Your task to perform on an android device: turn off priority inbox in the gmail app Image 0: 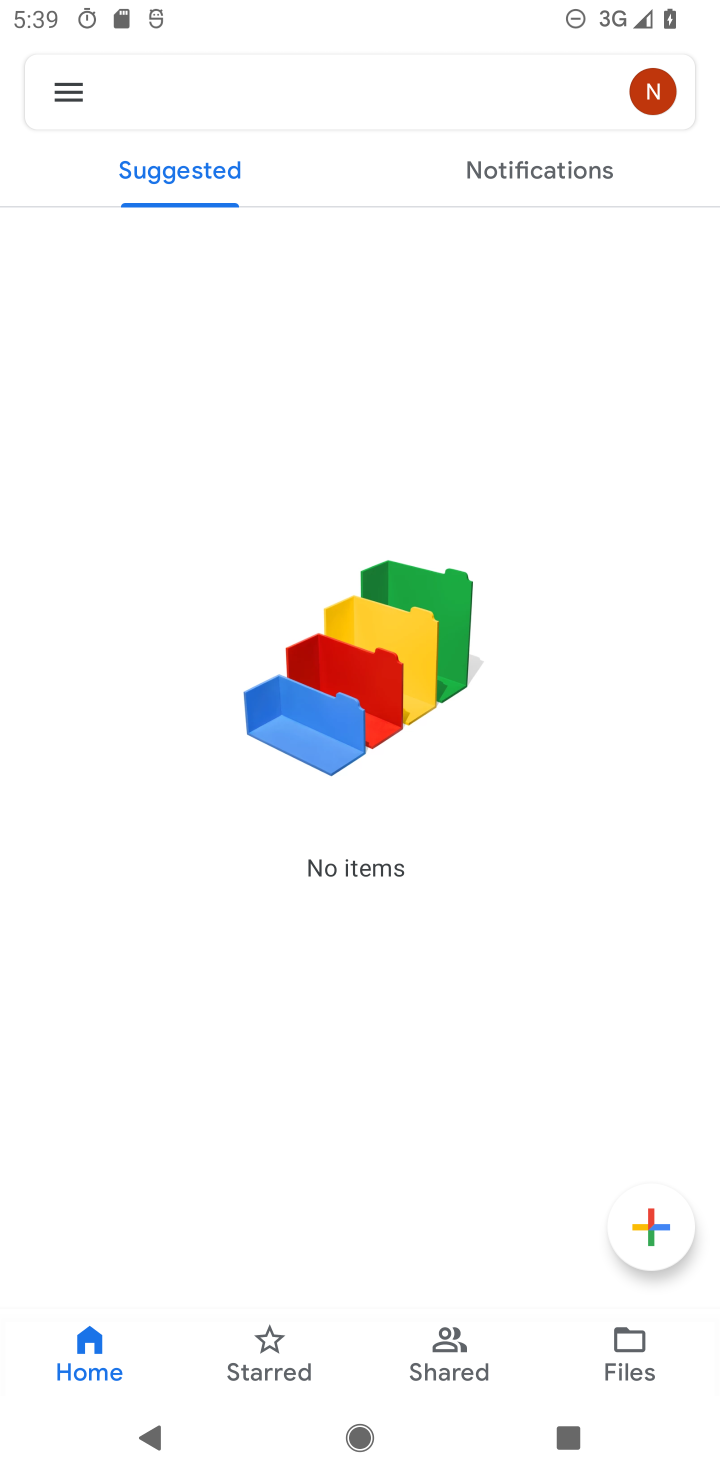
Step 0: press home button
Your task to perform on an android device: turn off priority inbox in the gmail app Image 1: 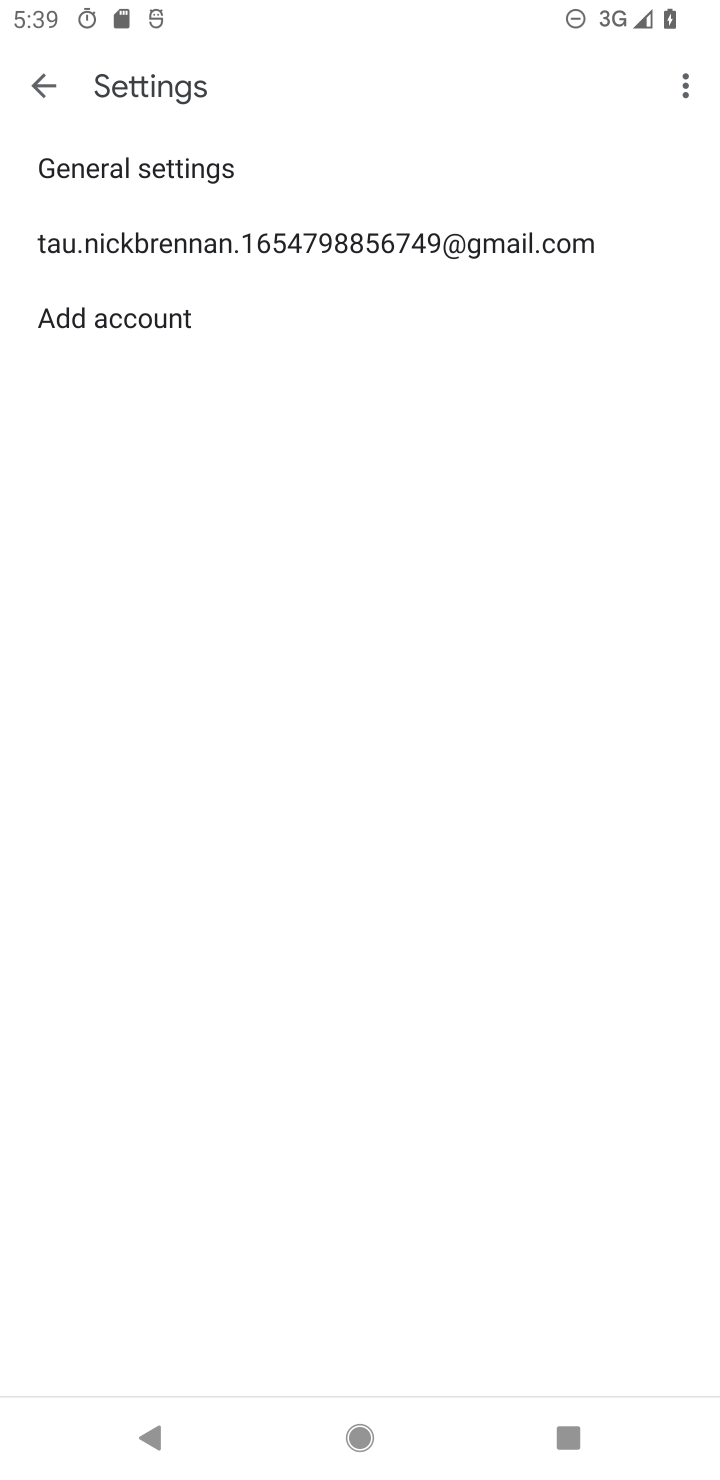
Step 1: drag from (314, 896) to (368, 269)
Your task to perform on an android device: turn off priority inbox in the gmail app Image 2: 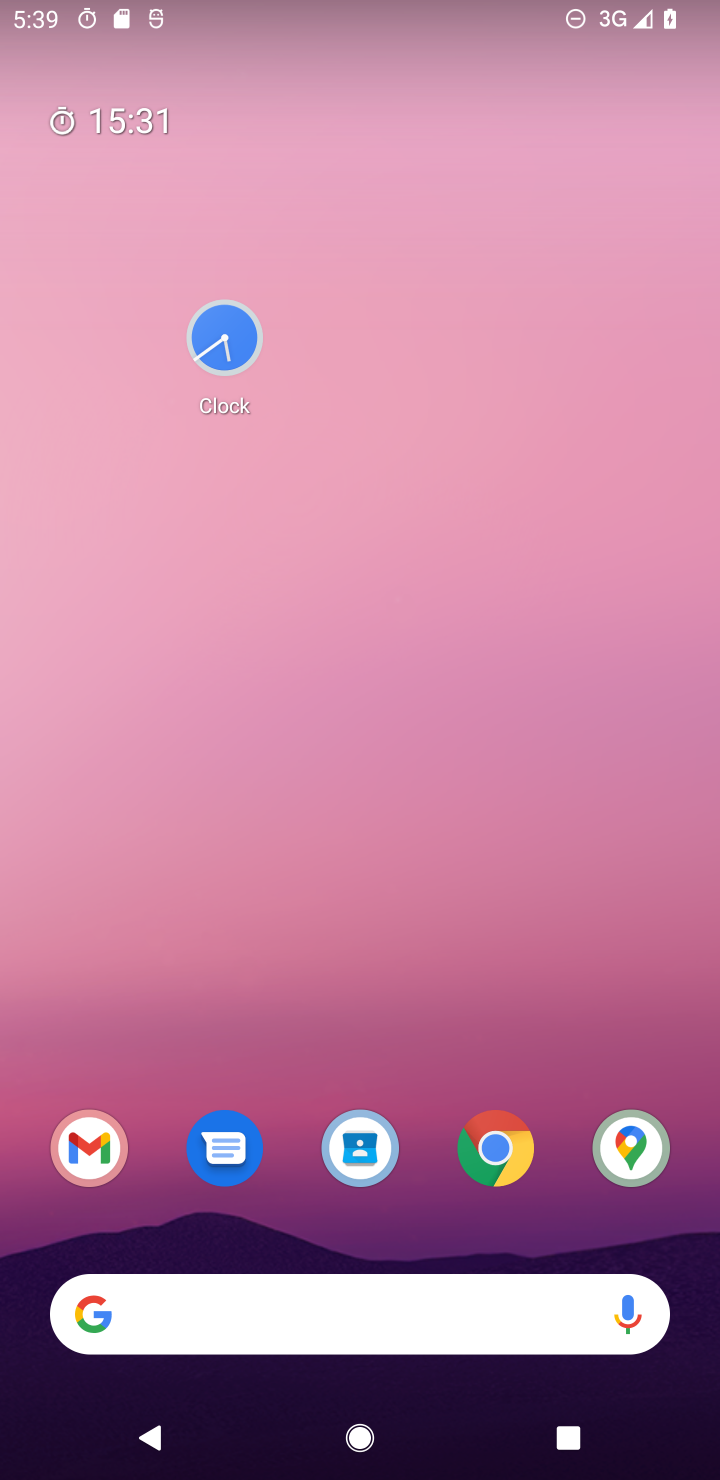
Step 2: drag from (314, 1199) to (319, 194)
Your task to perform on an android device: turn off priority inbox in the gmail app Image 3: 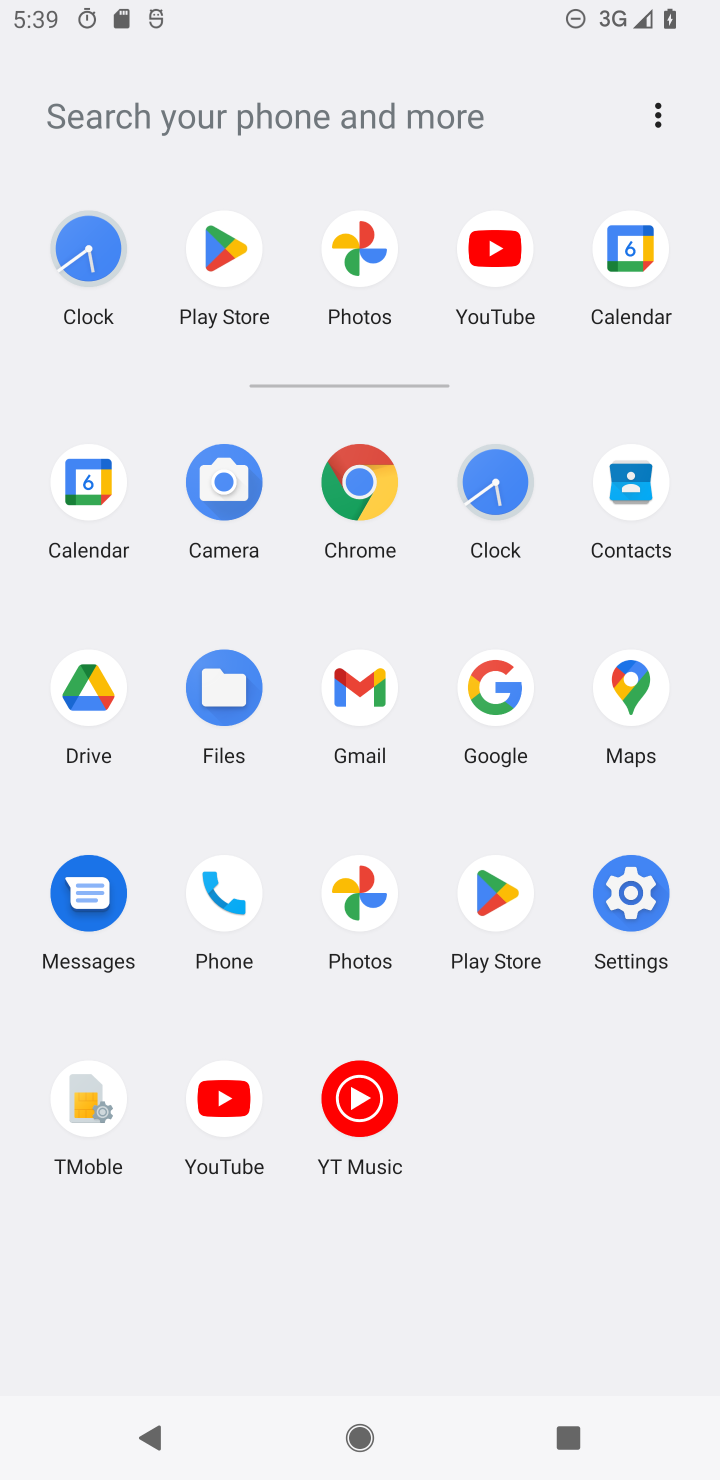
Step 3: click (654, 888)
Your task to perform on an android device: turn off priority inbox in the gmail app Image 4: 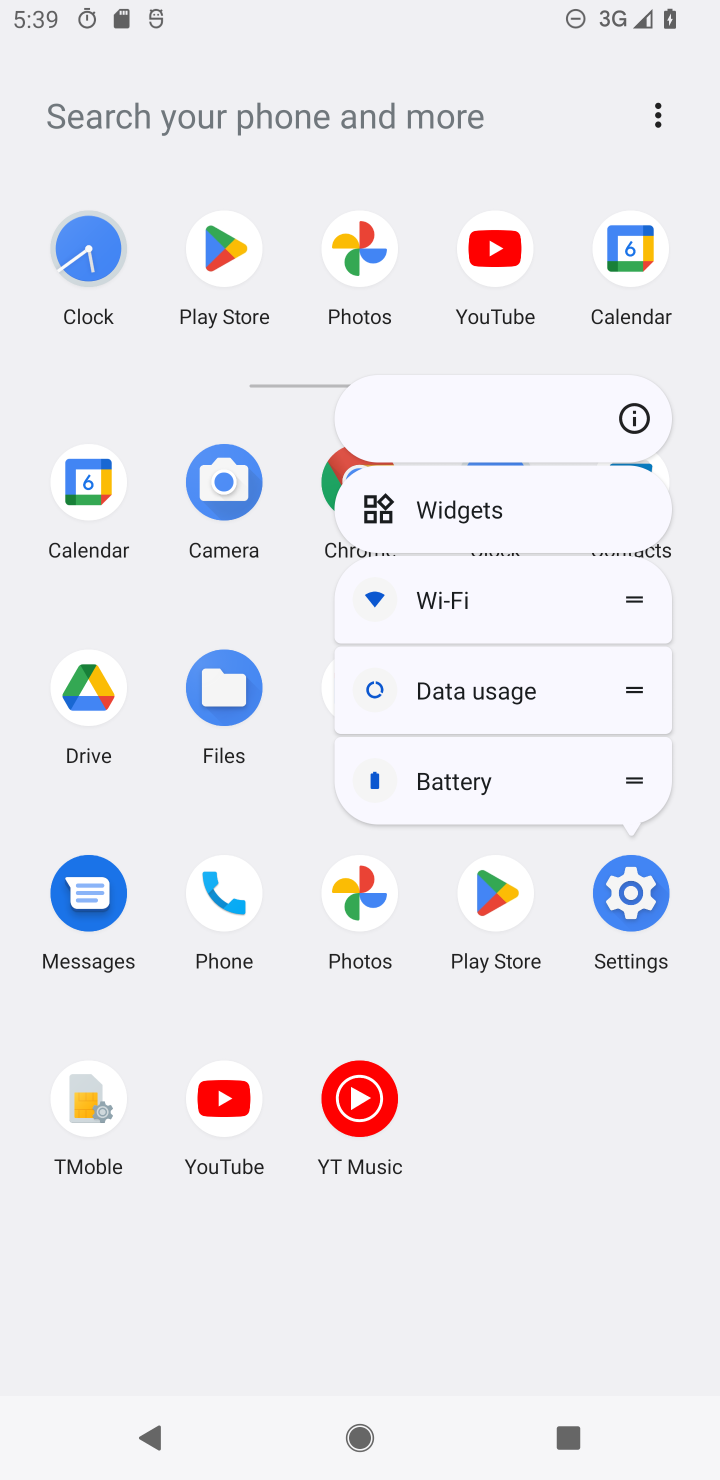
Step 4: click (295, 777)
Your task to perform on an android device: turn off priority inbox in the gmail app Image 5: 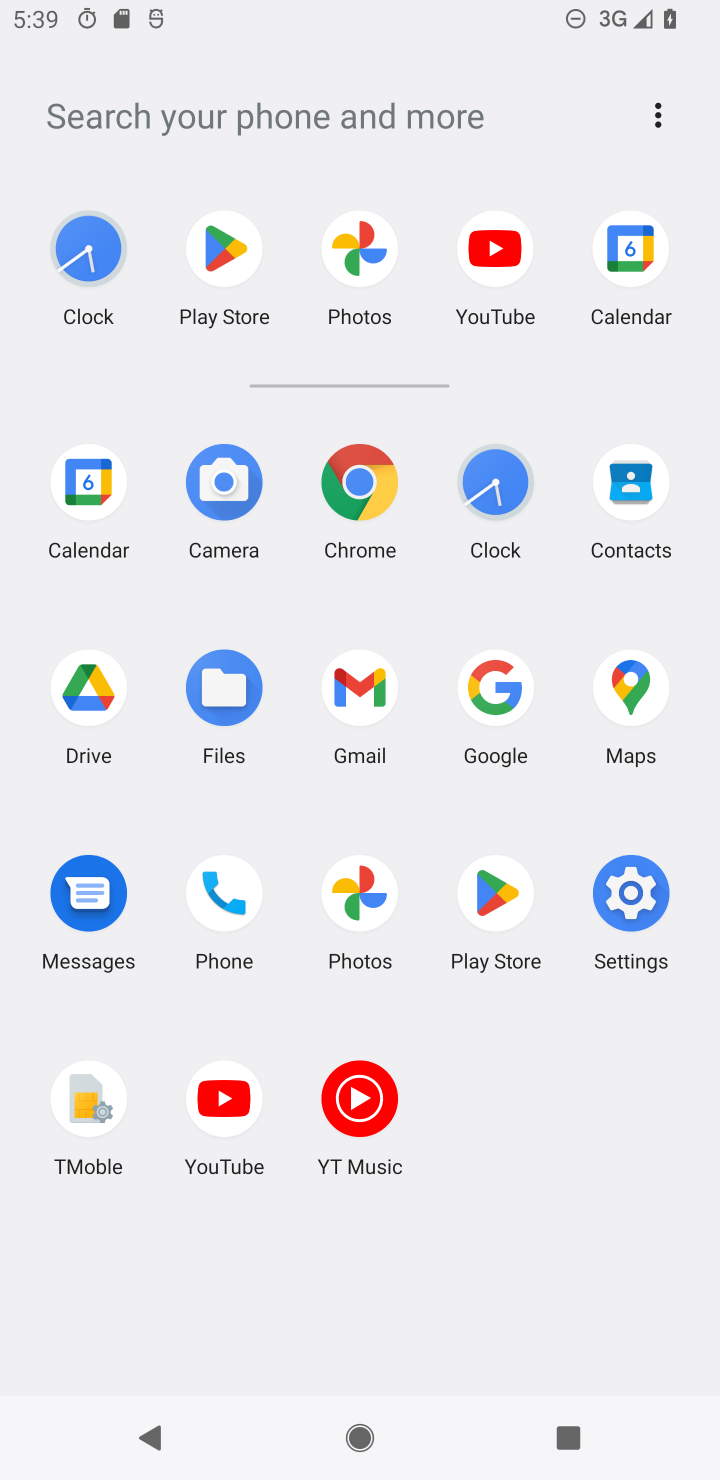
Step 5: click (358, 688)
Your task to perform on an android device: turn off priority inbox in the gmail app Image 6: 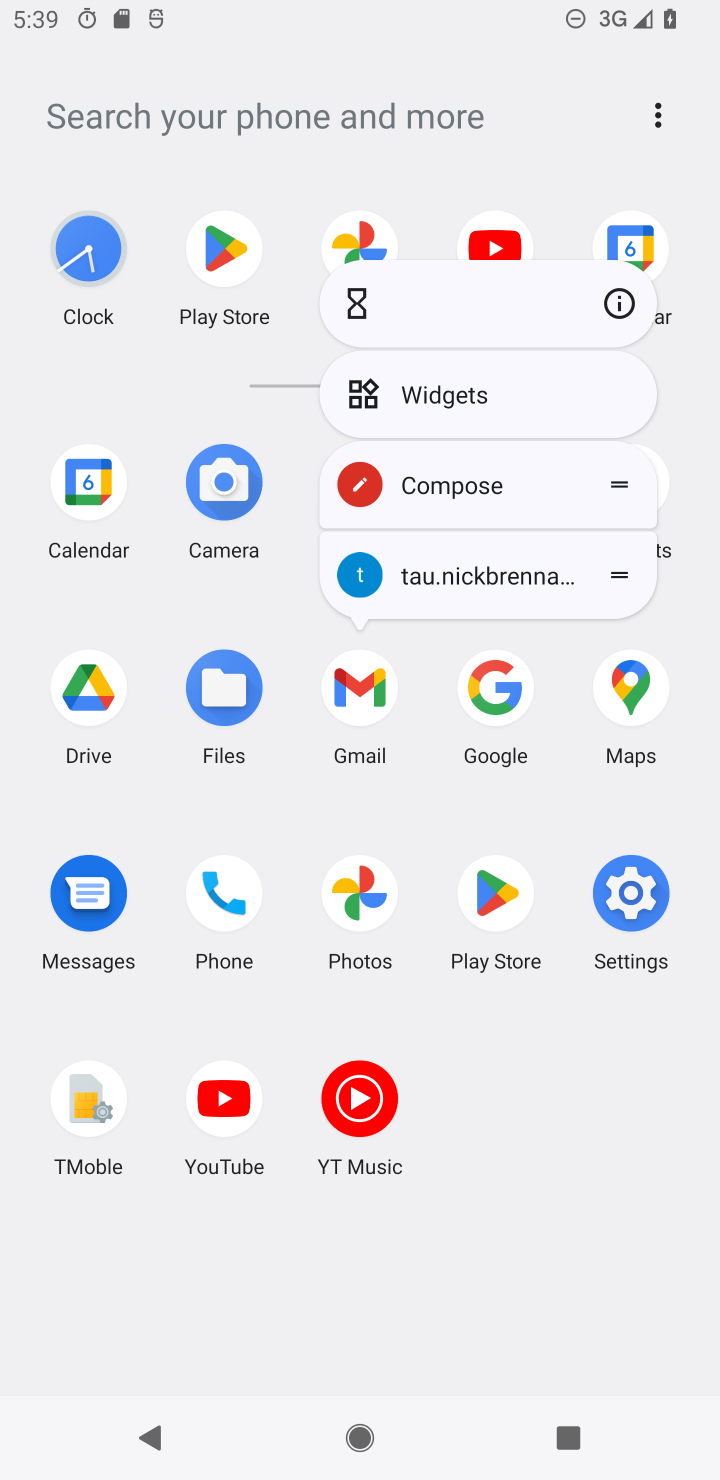
Step 6: click (626, 287)
Your task to perform on an android device: turn off priority inbox in the gmail app Image 7: 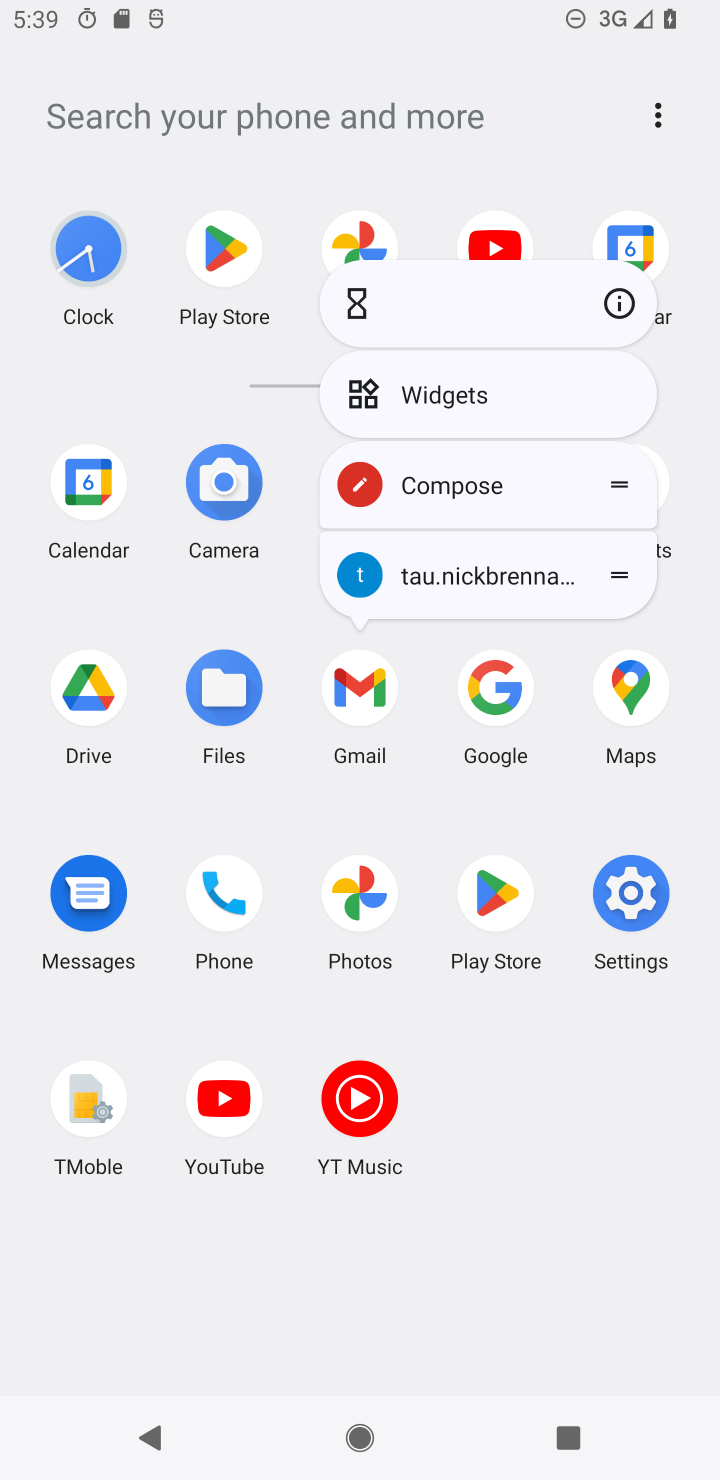
Step 7: click (624, 304)
Your task to perform on an android device: turn off priority inbox in the gmail app Image 8: 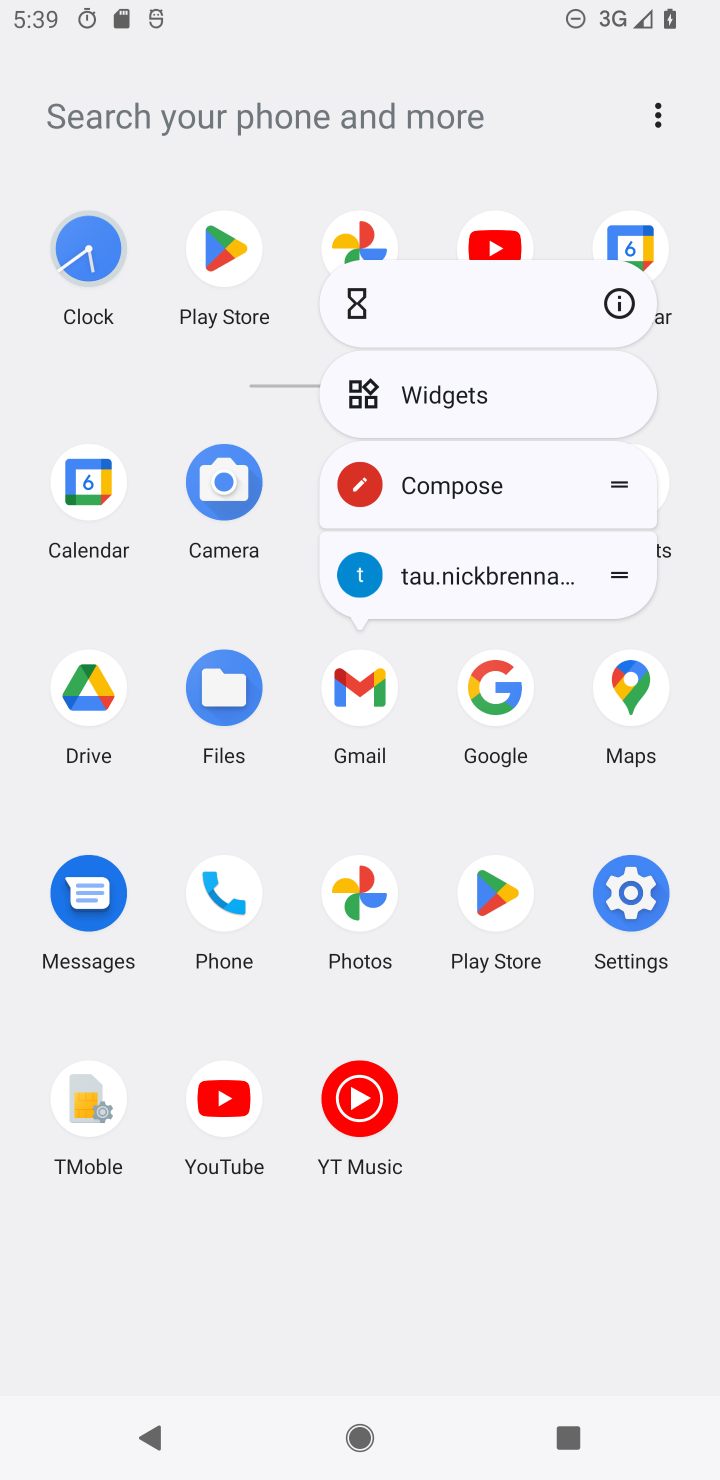
Step 8: click (339, 695)
Your task to perform on an android device: turn off priority inbox in the gmail app Image 9: 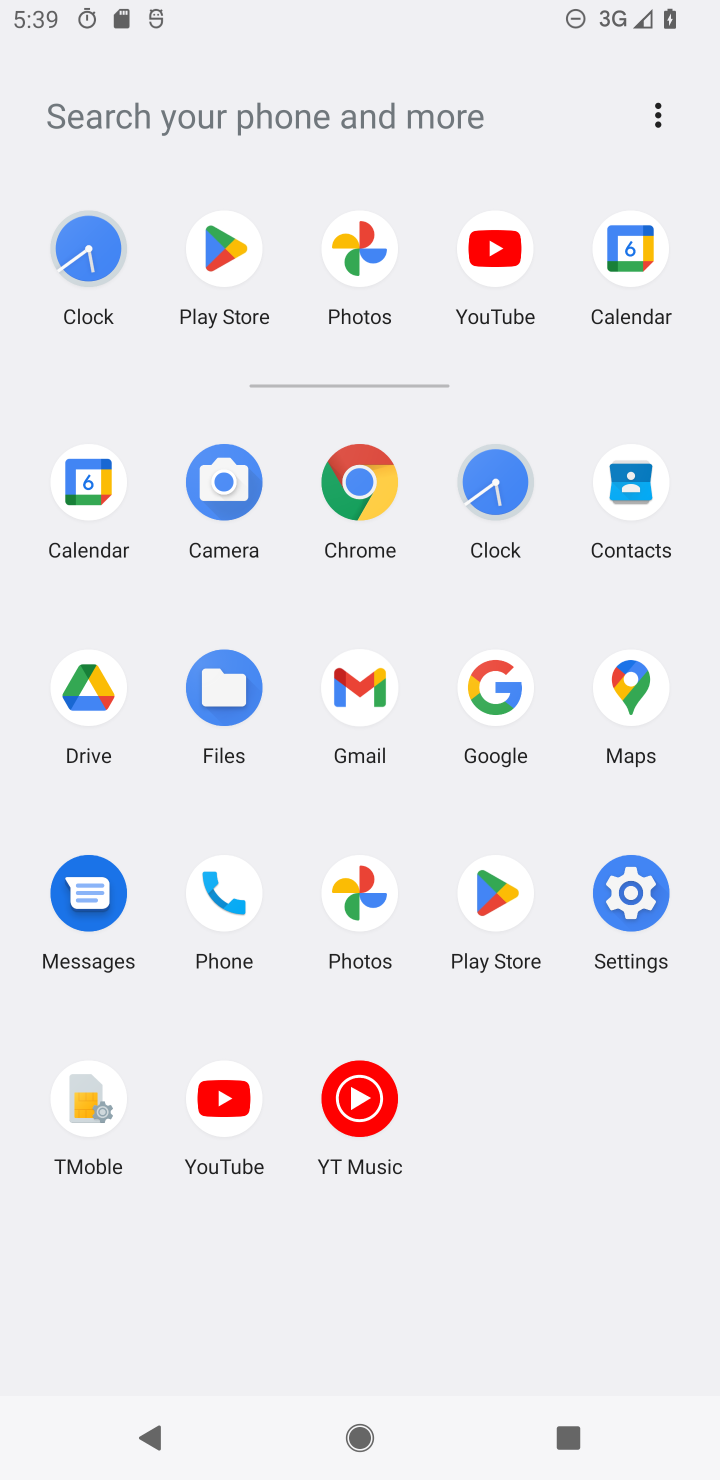
Step 9: click (339, 695)
Your task to perform on an android device: turn off priority inbox in the gmail app Image 10: 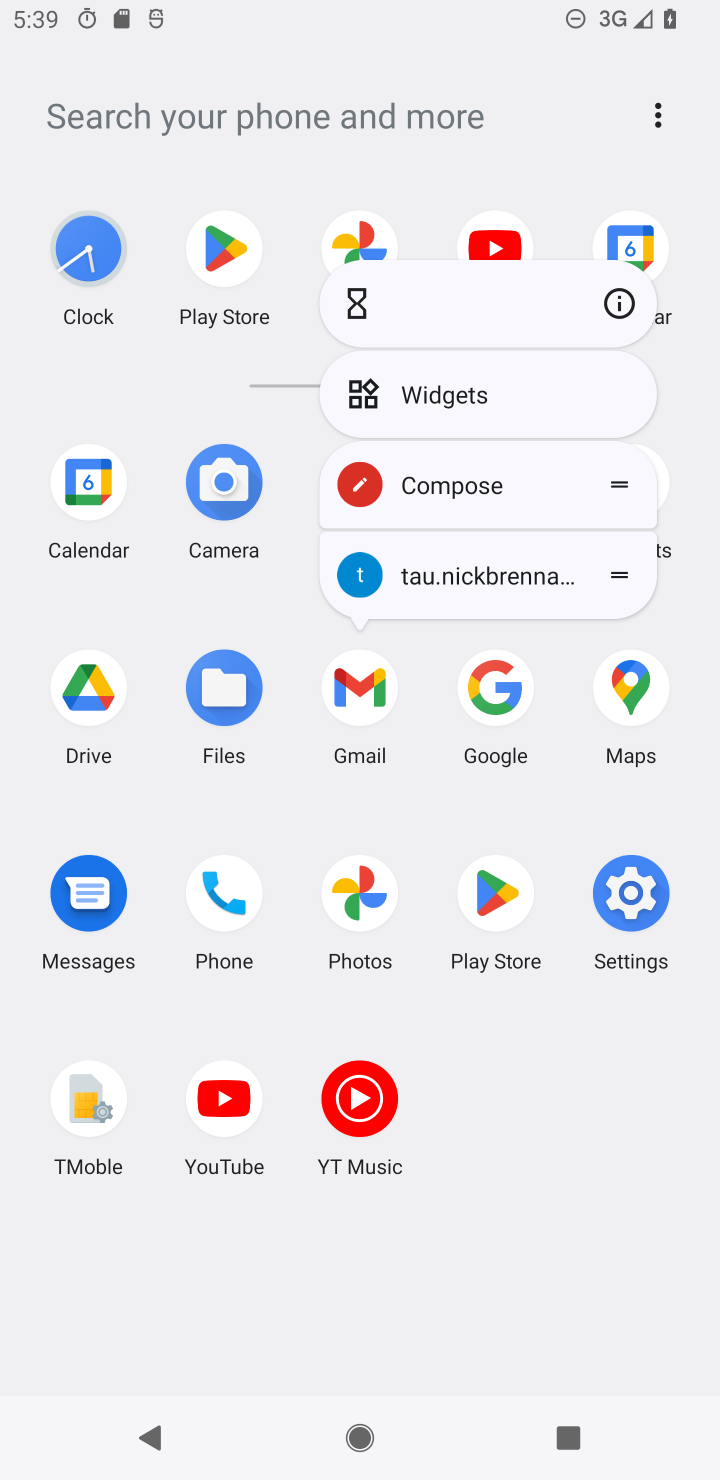
Step 10: click (610, 308)
Your task to perform on an android device: turn off priority inbox in the gmail app Image 11: 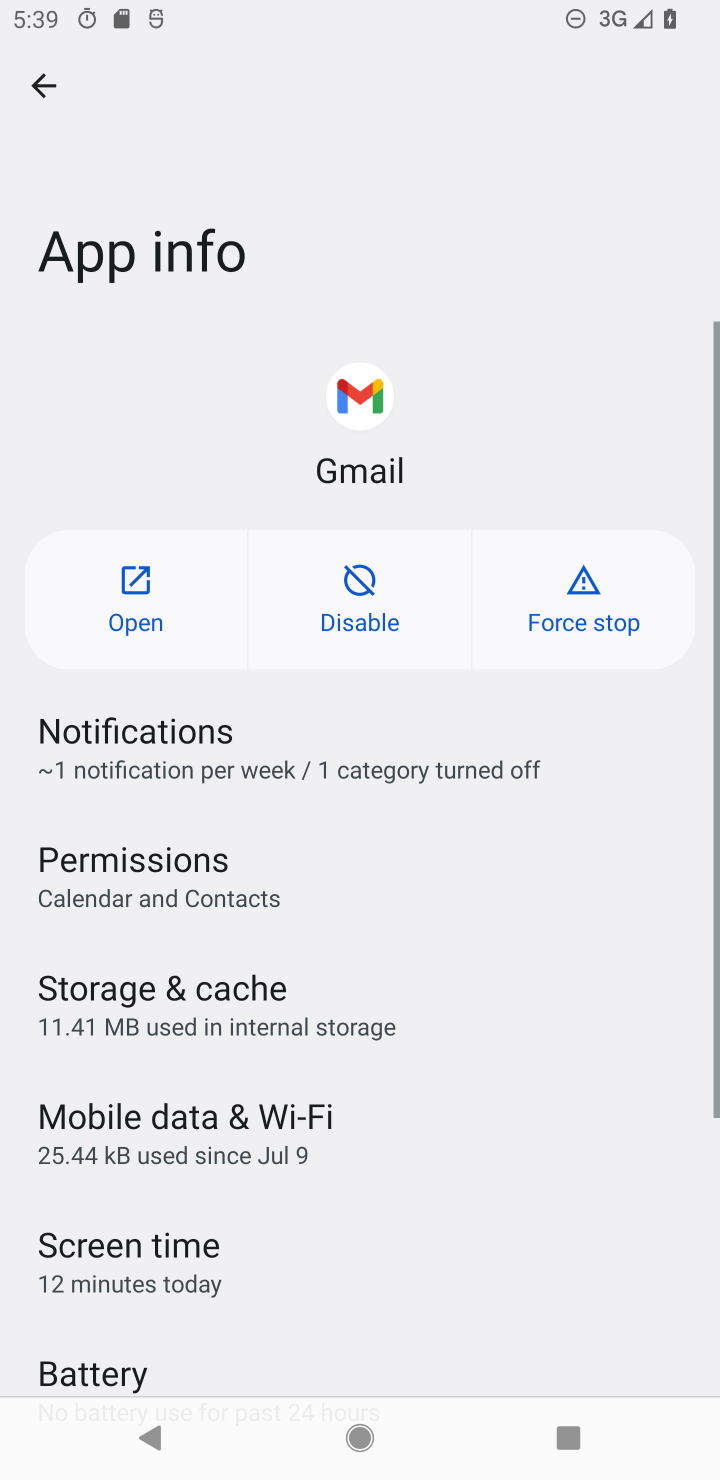
Step 11: click (177, 591)
Your task to perform on an android device: turn off priority inbox in the gmail app Image 12: 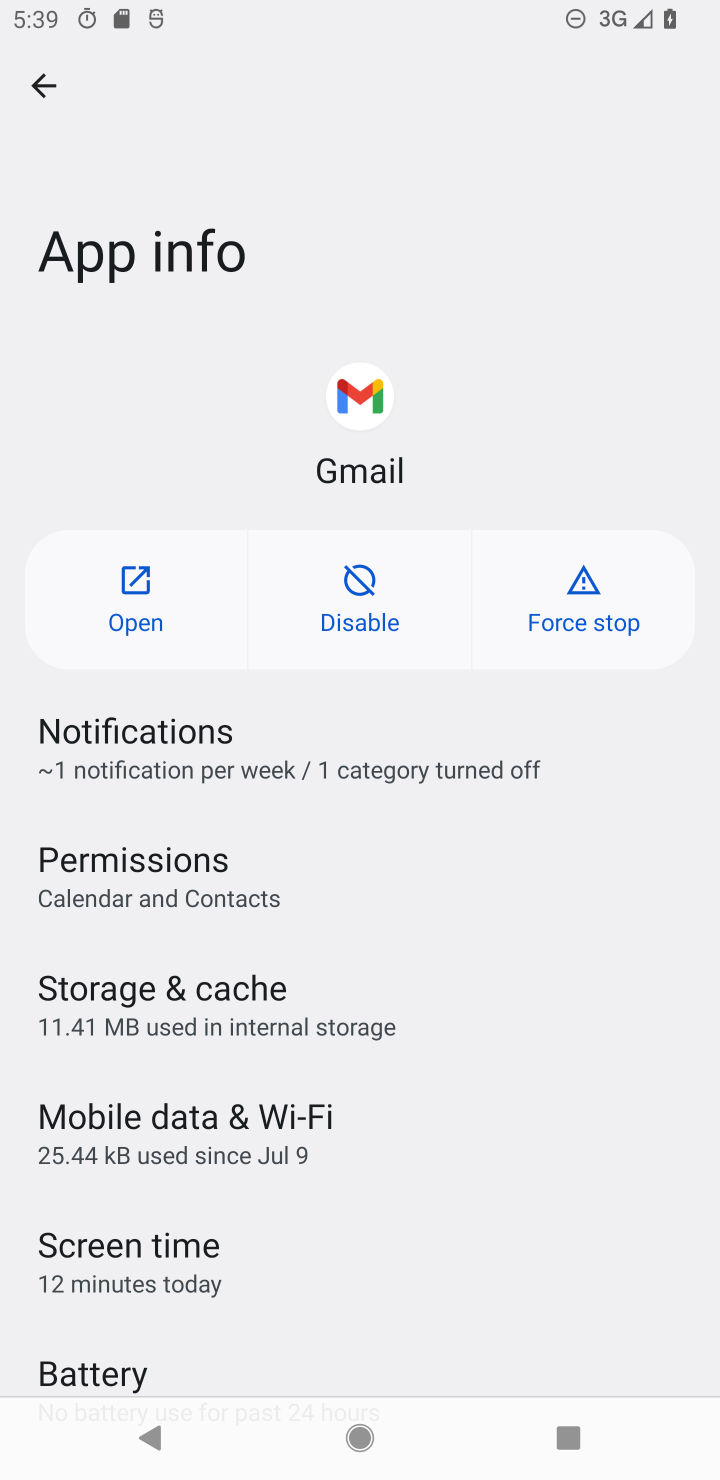
Step 12: click (158, 587)
Your task to perform on an android device: turn off priority inbox in the gmail app Image 13: 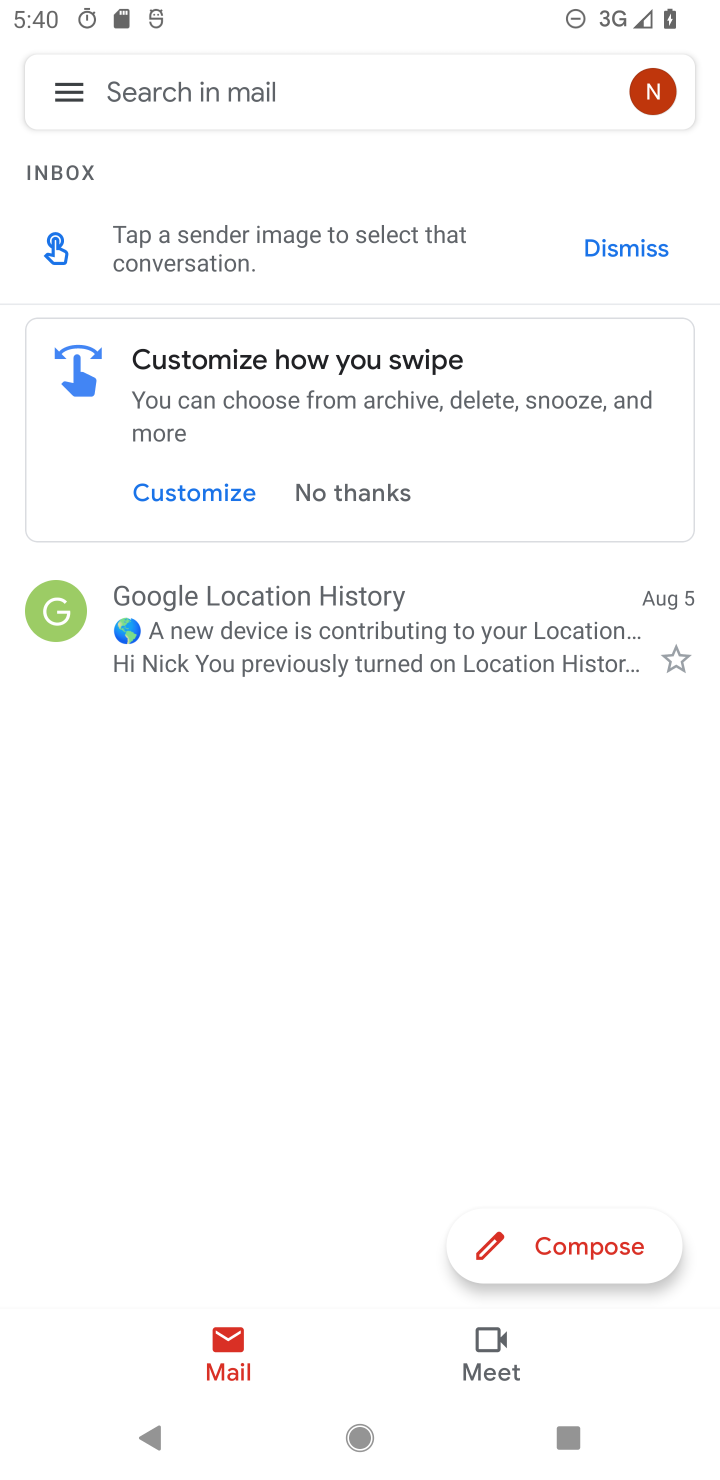
Step 13: click (64, 77)
Your task to perform on an android device: turn off priority inbox in the gmail app Image 14: 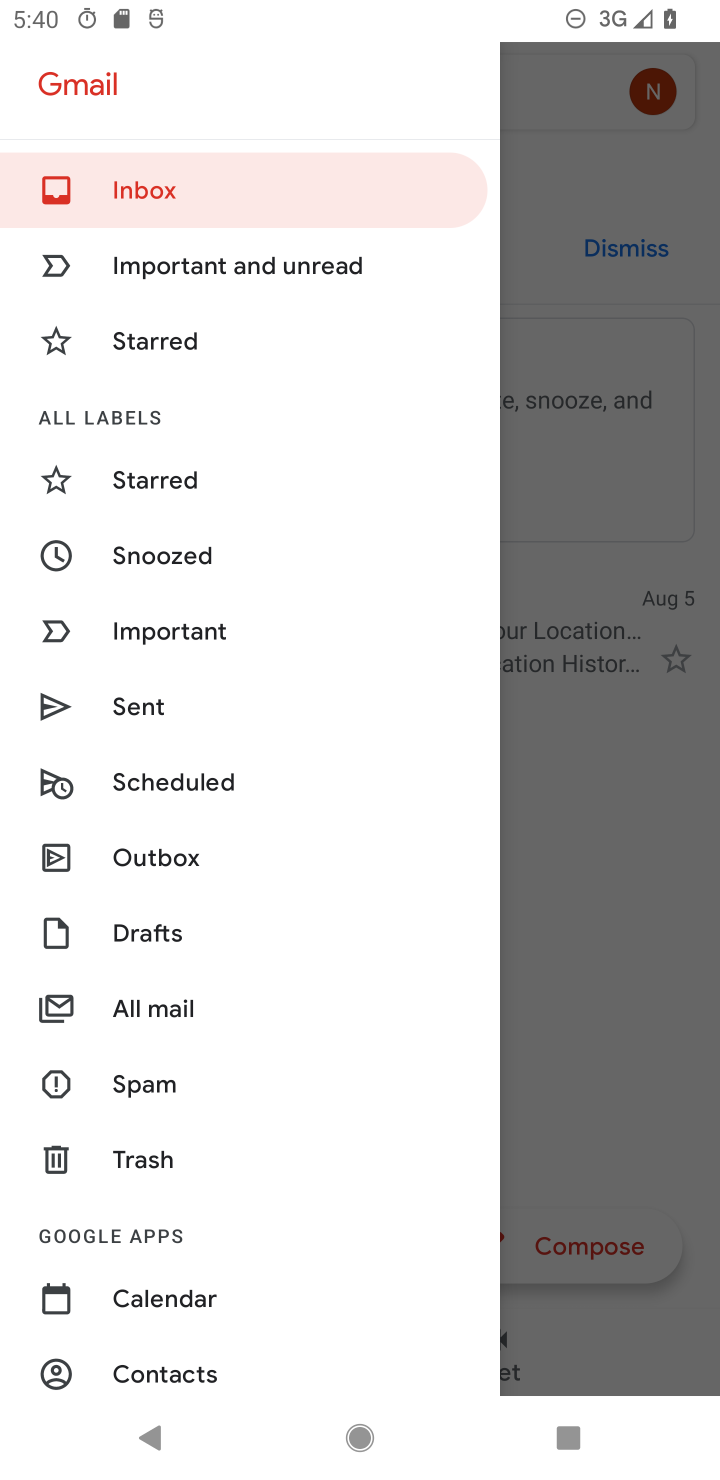
Step 14: drag from (232, 1207) to (282, 495)
Your task to perform on an android device: turn off priority inbox in the gmail app Image 15: 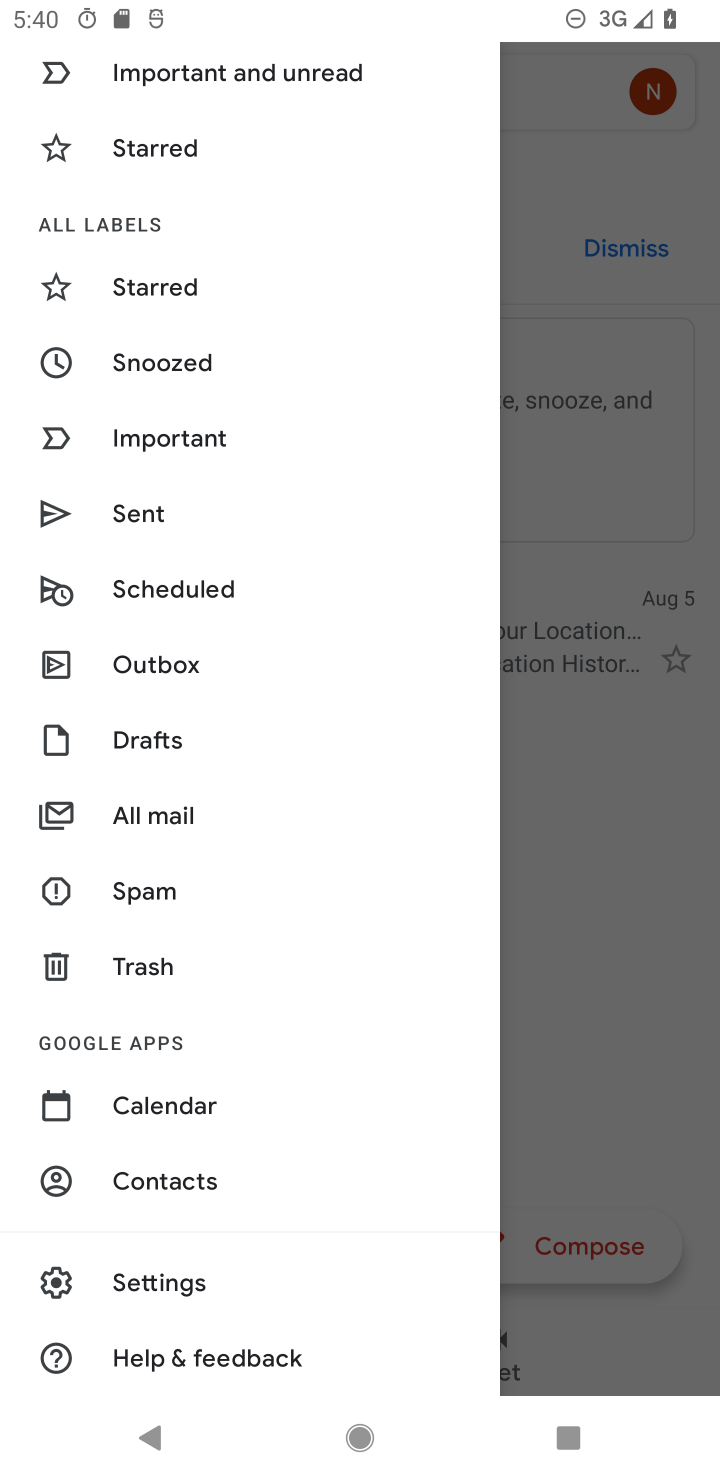
Step 15: drag from (301, 770) to (301, 549)
Your task to perform on an android device: turn off priority inbox in the gmail app Image 16: 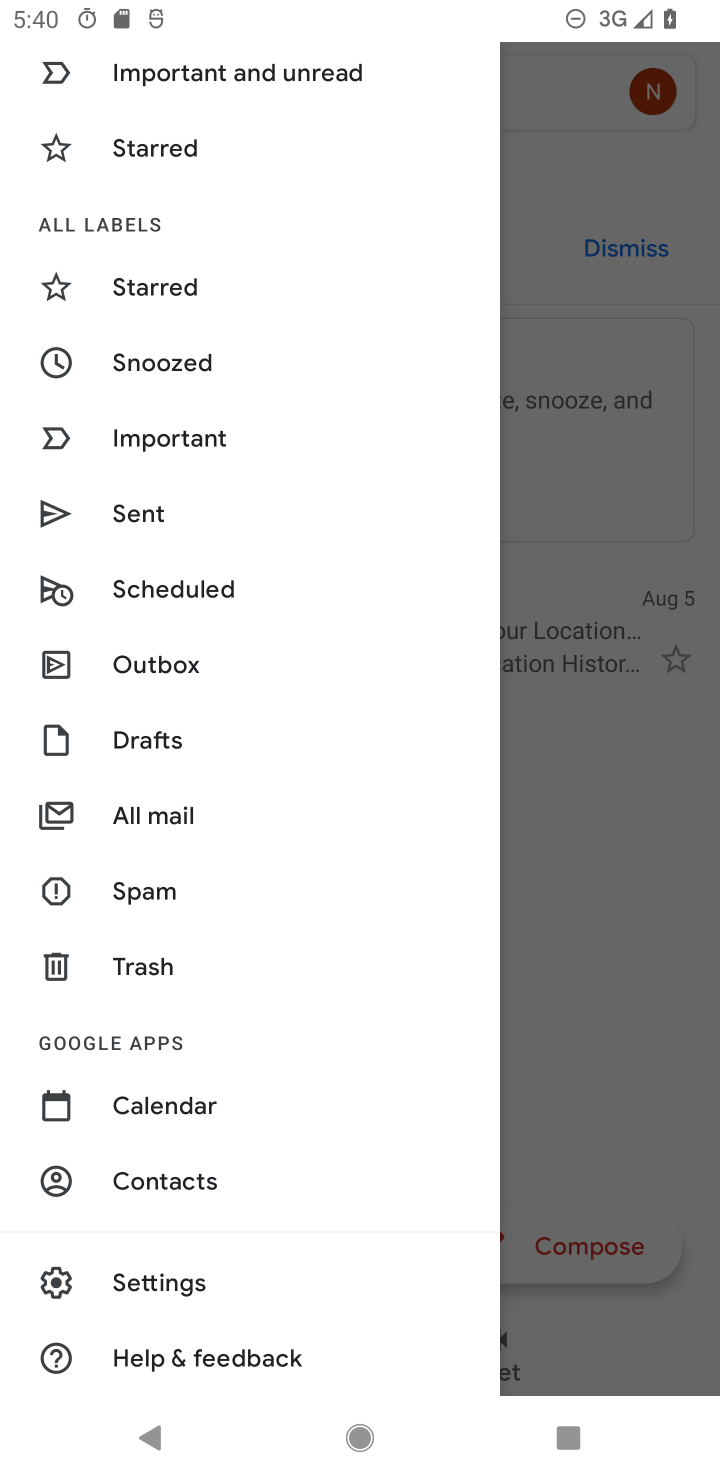
Step 16: drag from (217, 1211) to (275, 579)
Your task to perform on an android device: turn off priority inbox in the gmail app Image 17: 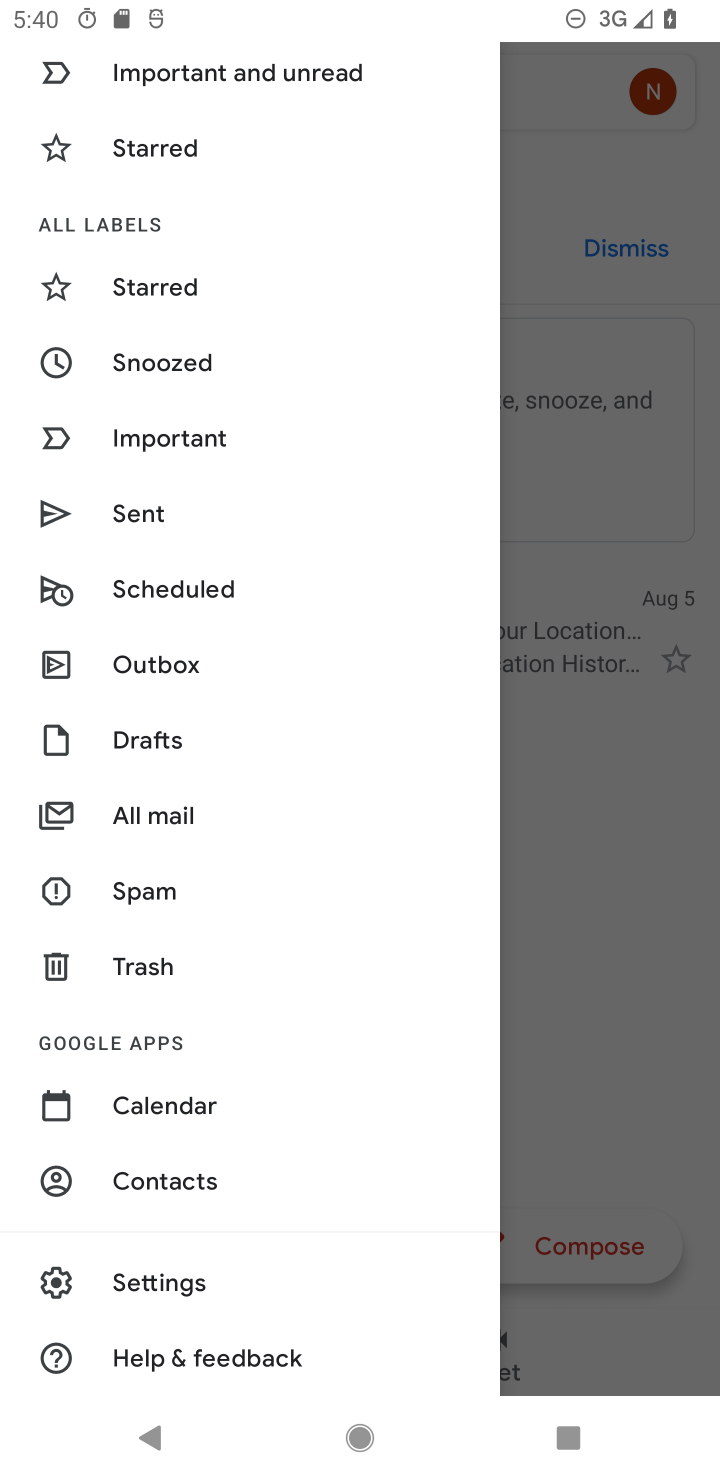
Step 17: drag from (181, 1273) to (352, 446)
Your task to perform on an android device: turn off priority inbox in the gmail app Image 18: 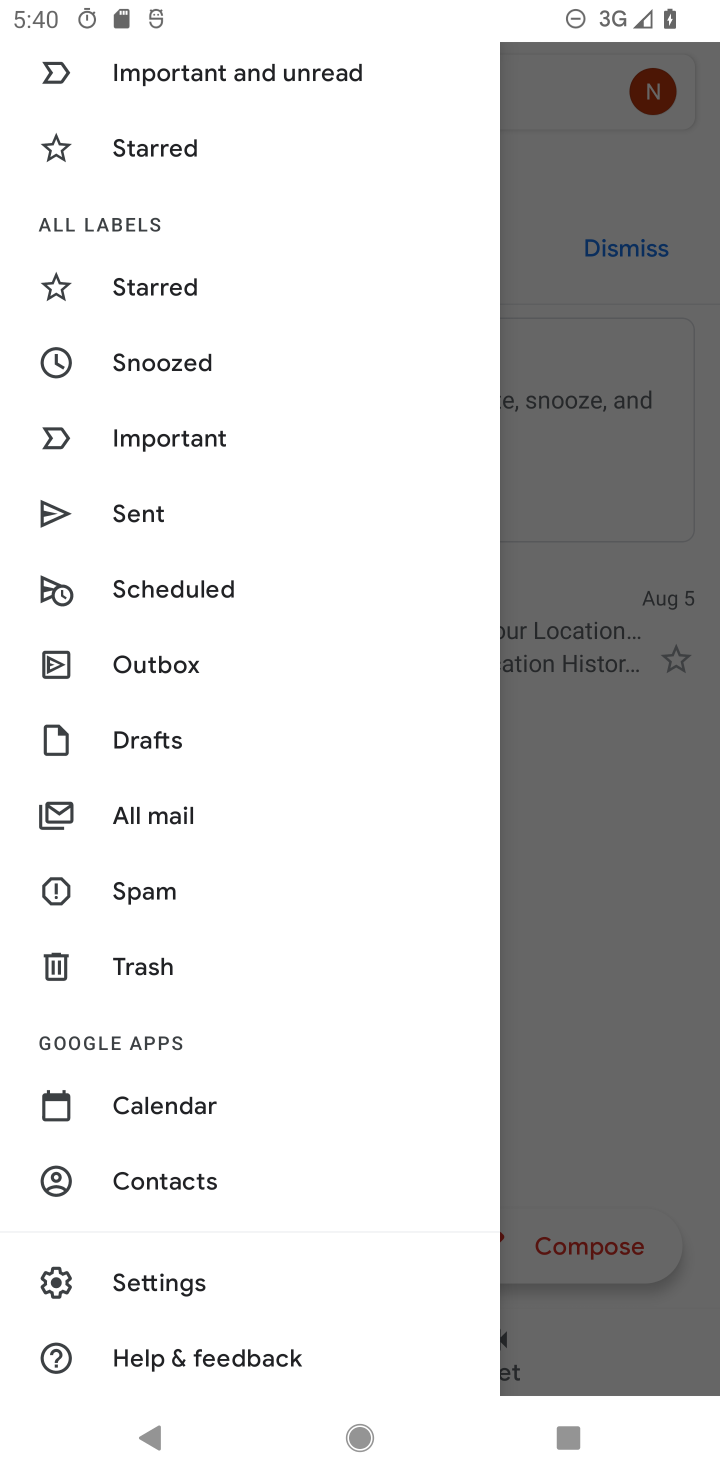
Step 18: click (181, 1269)
Your task to perform on an android device: turn off priority inbox in the gmail app Image 19: 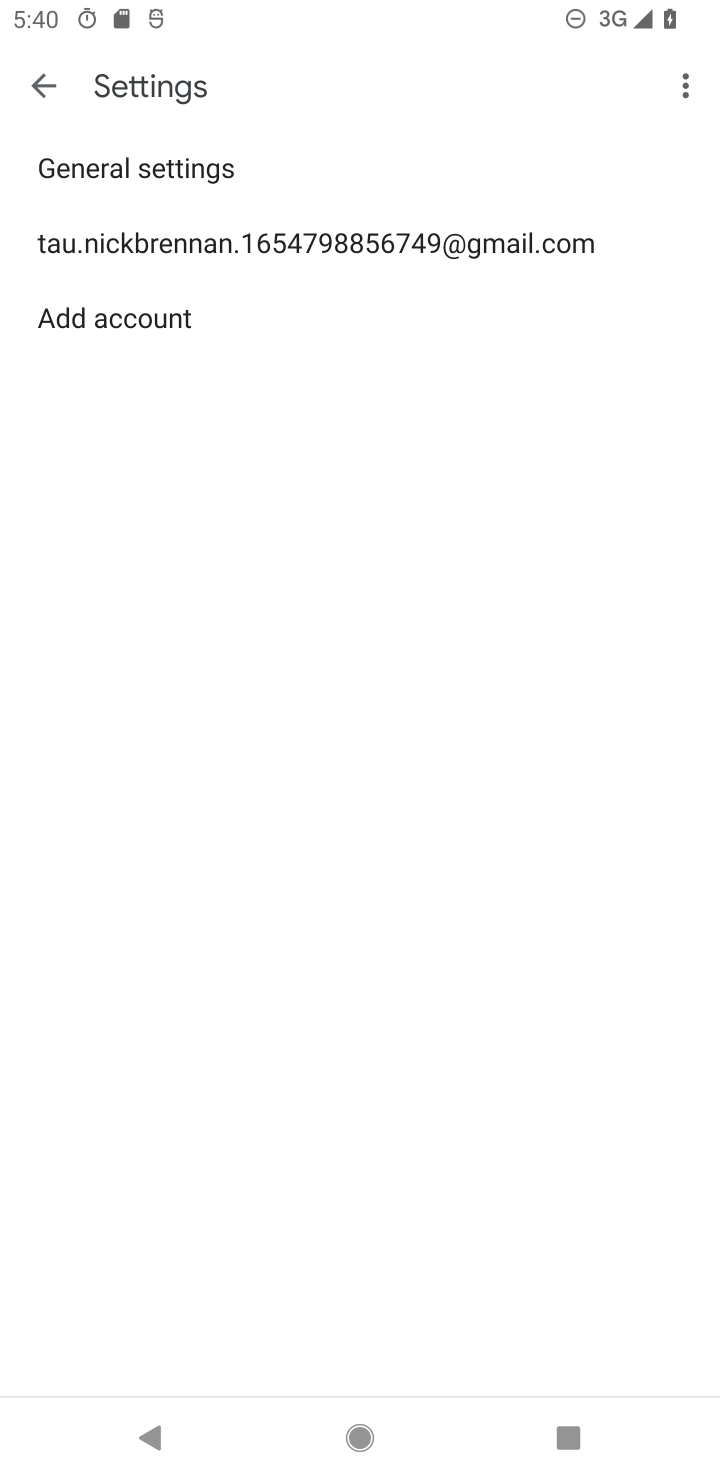
Step 19: click (438, 241)
Your task to perform on an android device: turn off priority inbox in the gmail app Image 20: 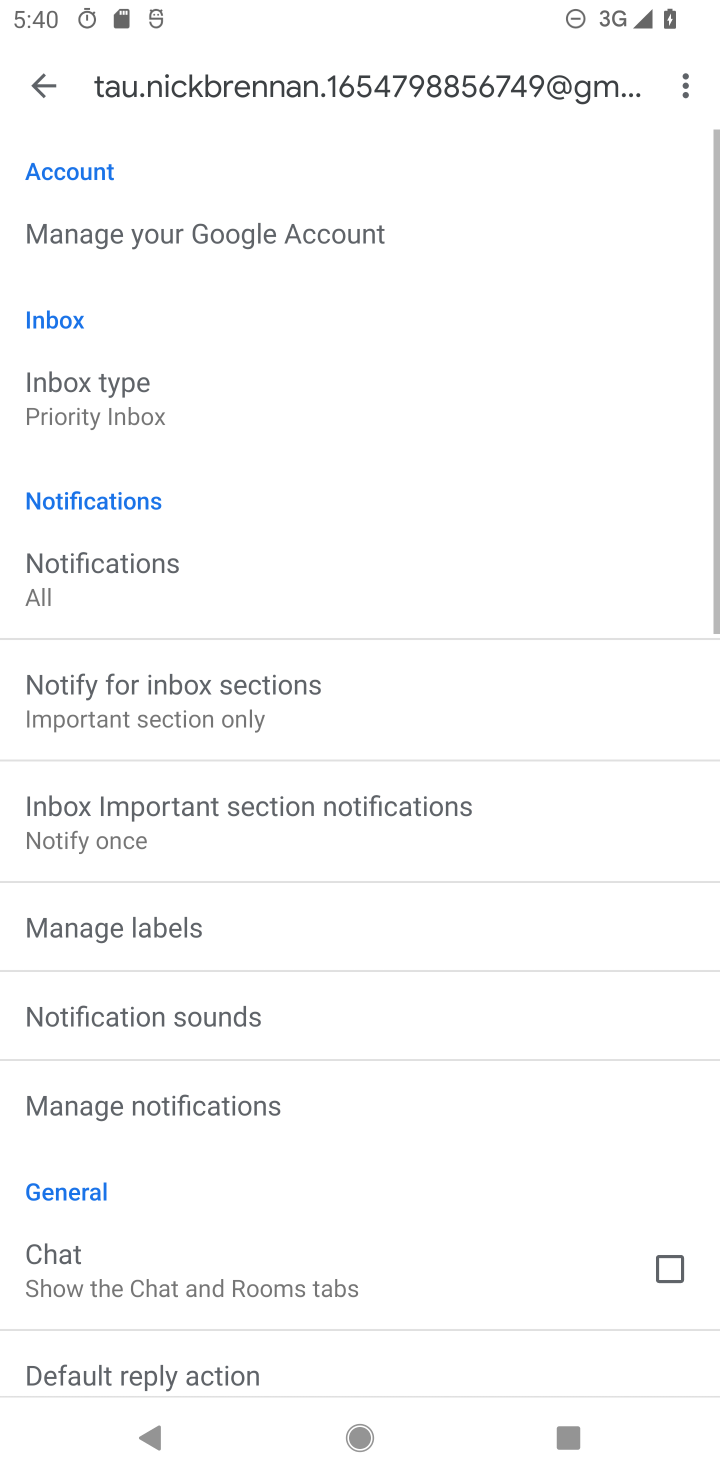
Step 20: drag from (316, 794) to (427, 1470)
Your task to perform on an android device: turn off priority inbox in the gmail app Image 21: 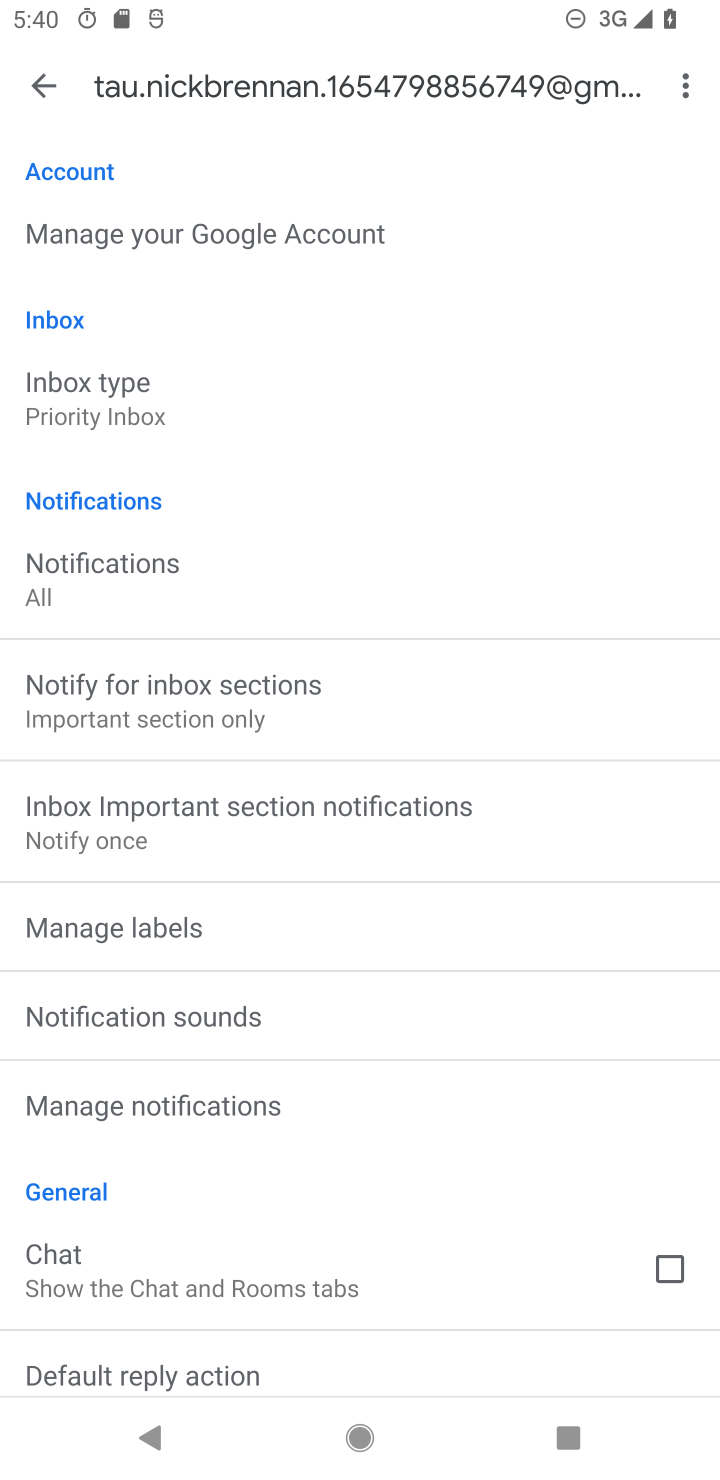
Step 21: click (449, 510)
Your task to perform on an android device: turn off priority inbox in the gmail app Image 22: 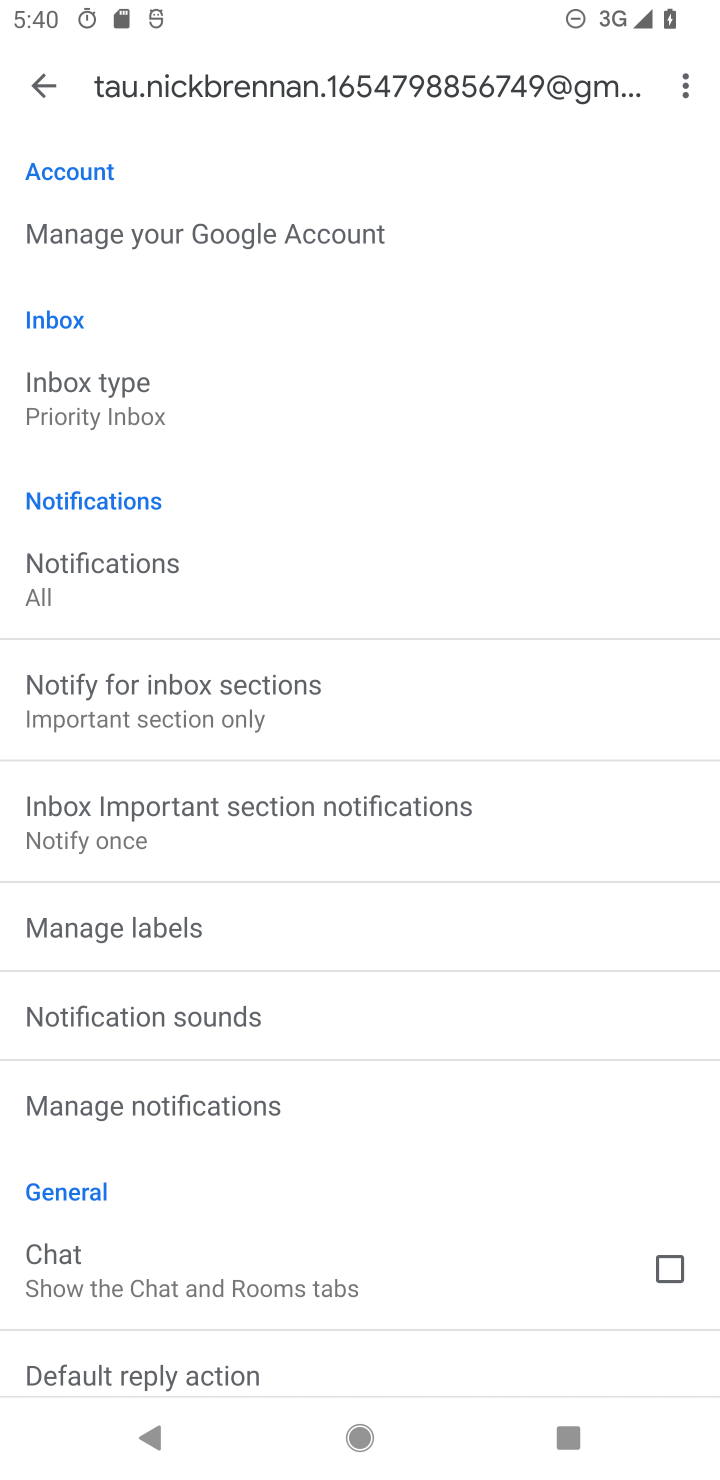
Step 22: drag from (375, 934) to (483, 1467)
Your task to perform on an android device: turn off priority inbox in the gmail app Image 23: 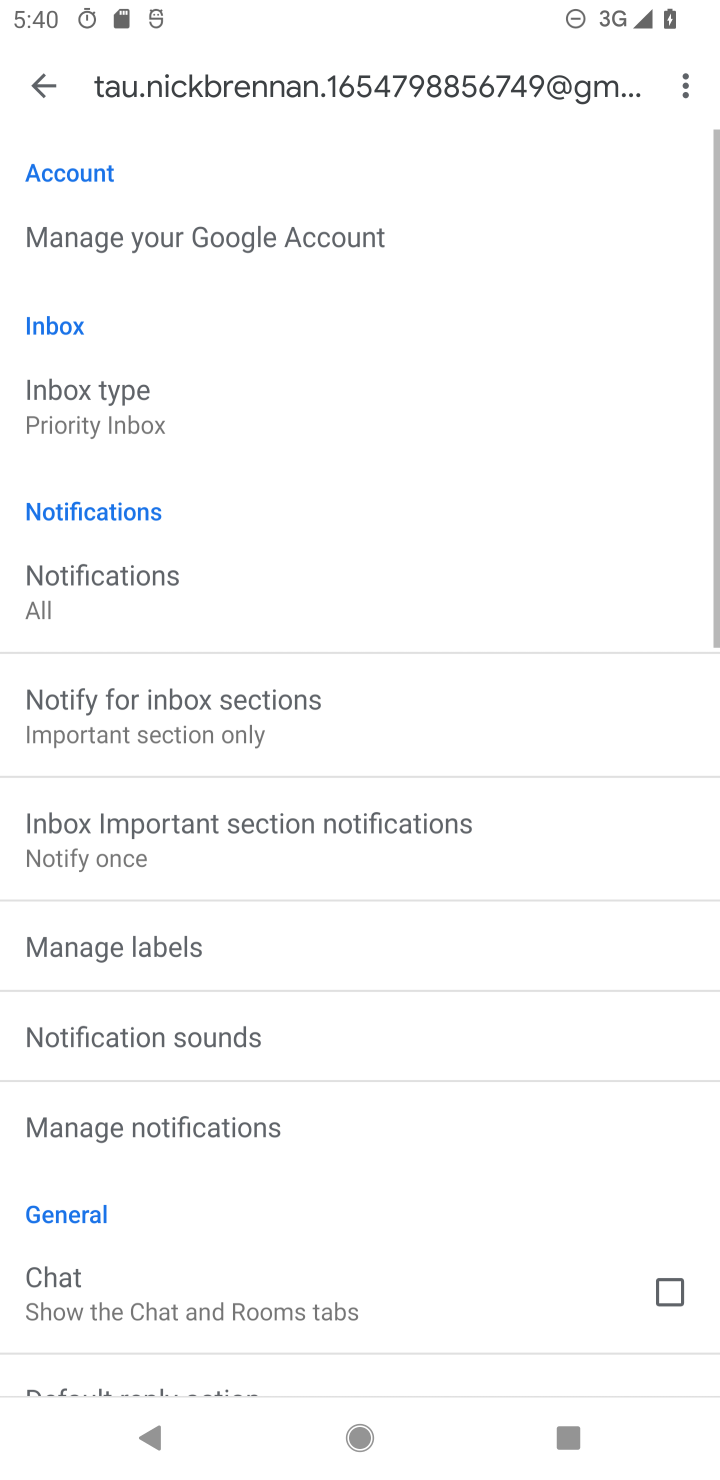
Step 23: click (285, 386)
Your task to perform on an android device: turn off priority inbox in the gmail app Image 24: 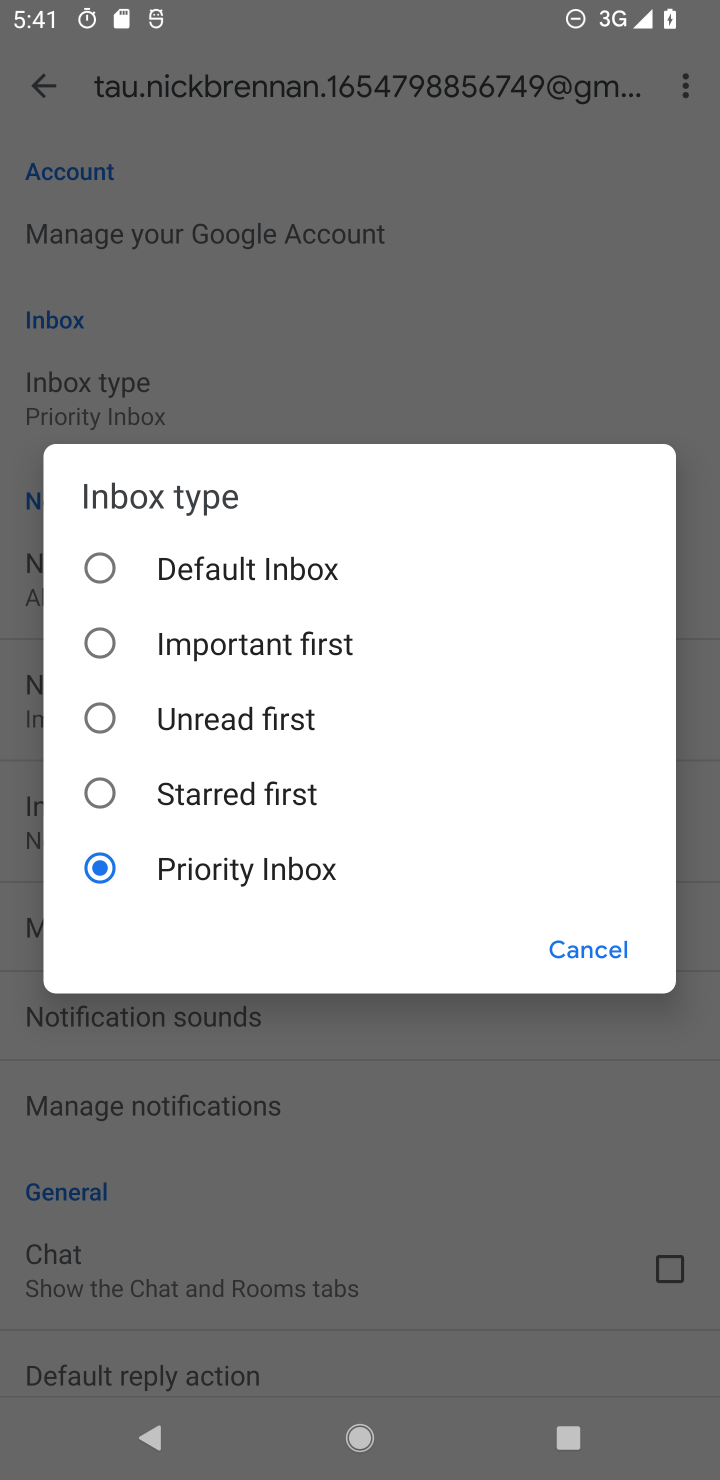
Step 24: click (188, 556)
Your task to perform on an android device: turn off priority inbox in the gmail app Image 25: 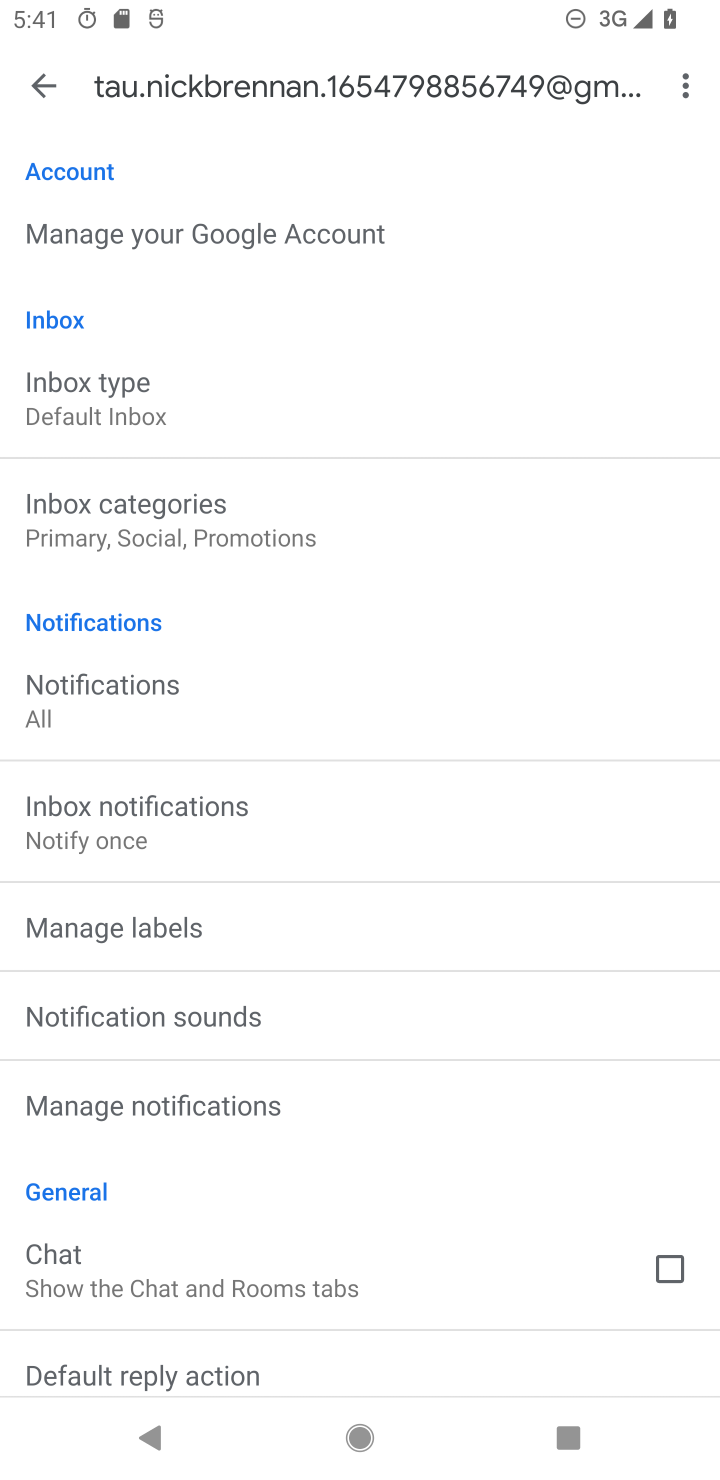
Step 25: task complete